Your task to perform on an android device: visit the assistant section in the google photos Image 0: 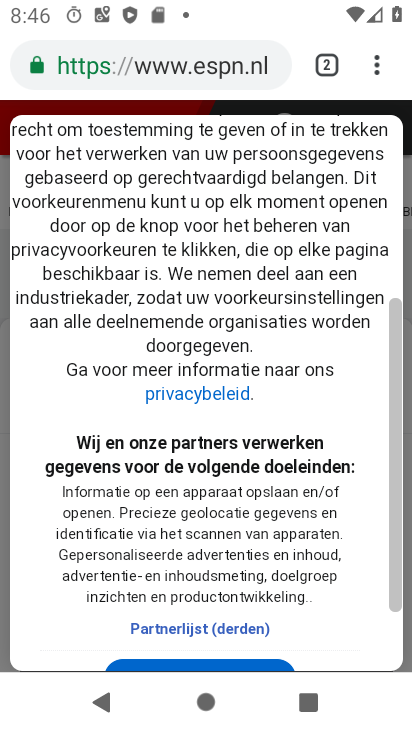
Step 0: press home button
Your task to perform on an android device: visit the assistant section in the google photos Image 1: 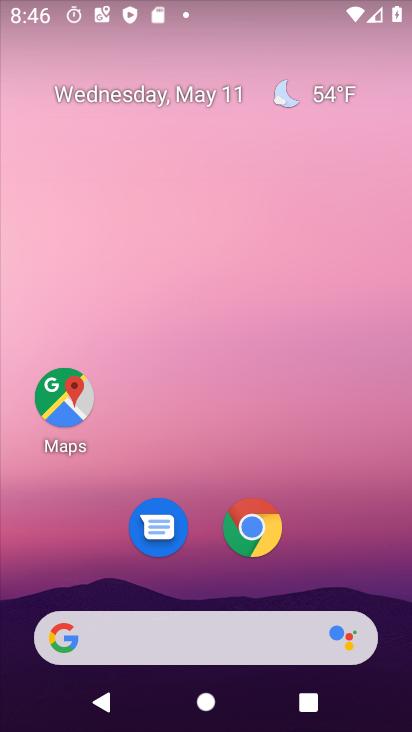
Step 1: drag from (201, 564) to (191, 73)
Your task to perform on an android device: visit the assistant section in the google photos Image 2: 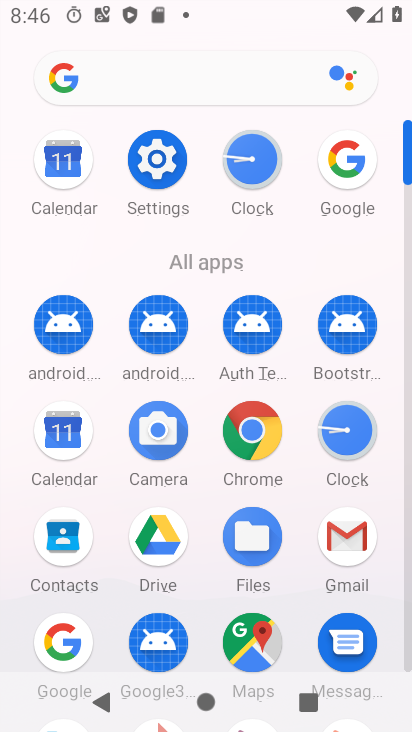
Step 2: drag from (210, 578) to (191, 267)
Your task to perform on an android device: visit the assistant section in the google photos Image 3: 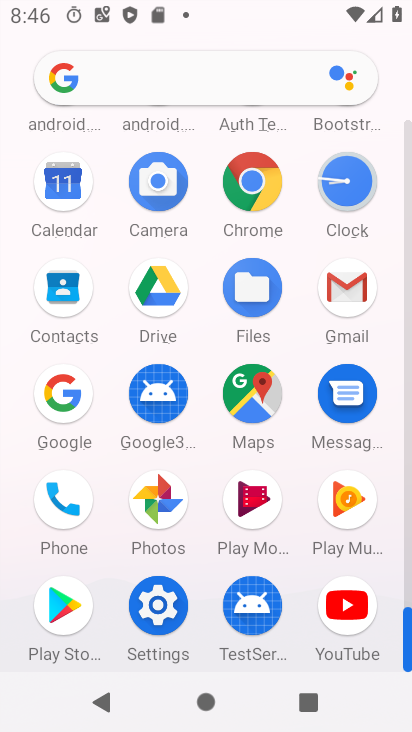
Step 3: click (157, 501)
Your task to perform on an android device: visit the assistant section in the google photos Image 4: 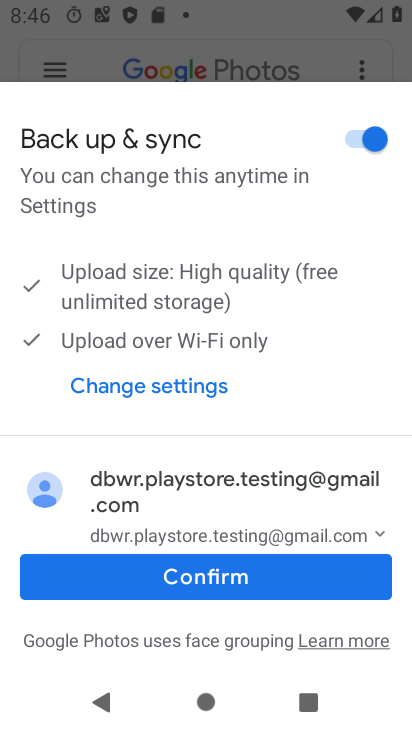
Step 4: click (213, 573)
Your task to perform on an android device: visit the assistant section in the google photos Image 5: 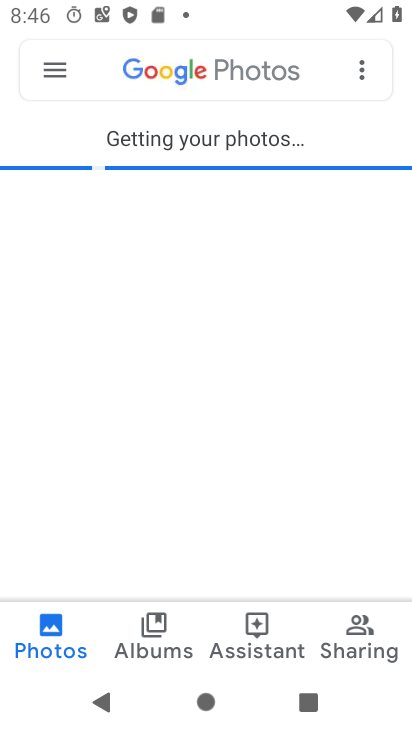
Step 5: click (255, 637)
Your task to perform on an android device: visit the assistant section in the google photos Image 6: 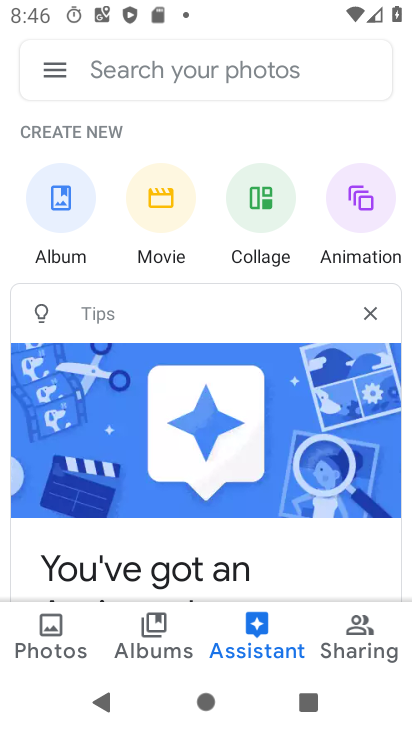
Step 6: task complete